Your task to perform on an android device: Add rayovac triple a to the cart on amazon.com Image 0: 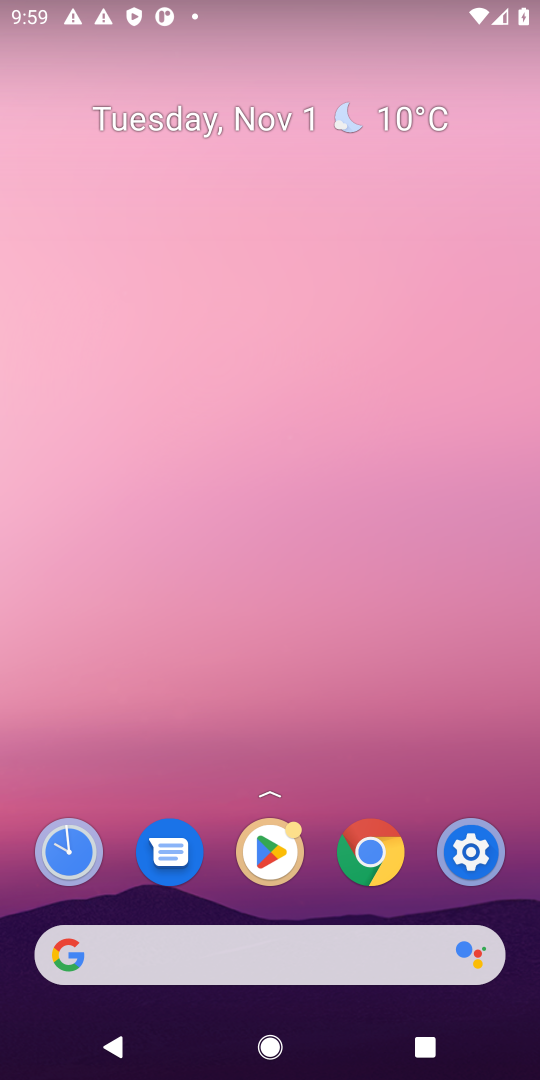
Step 0: click (57, 957)
Your task to perform on an android device: Add rayovac triple a to the cart on amazon.com Image 1: 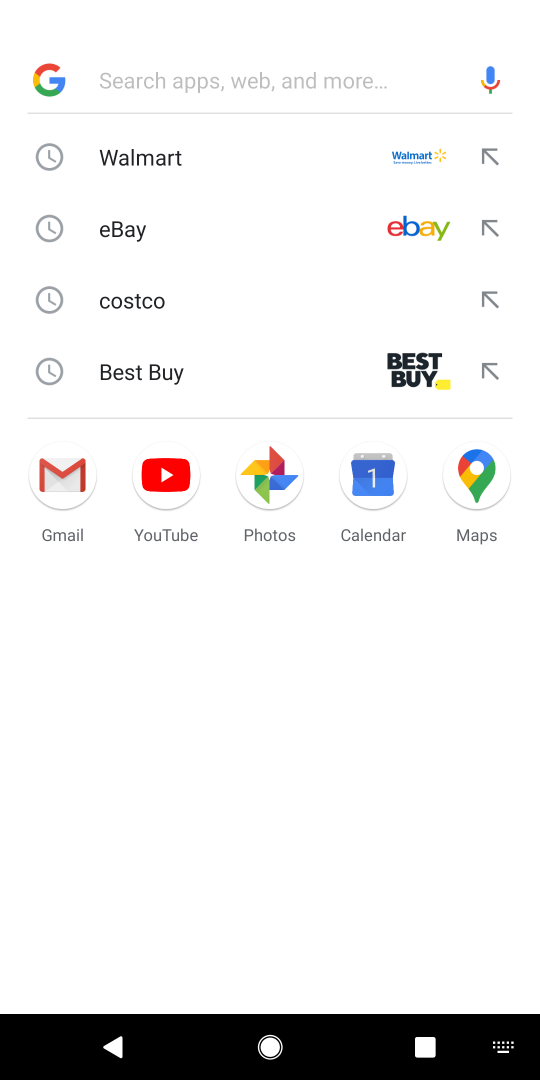
Step 1: type "amazon.com"
Your task to perform on an android device: Add rayovac triple a to the cart on amazon.com Image 2: 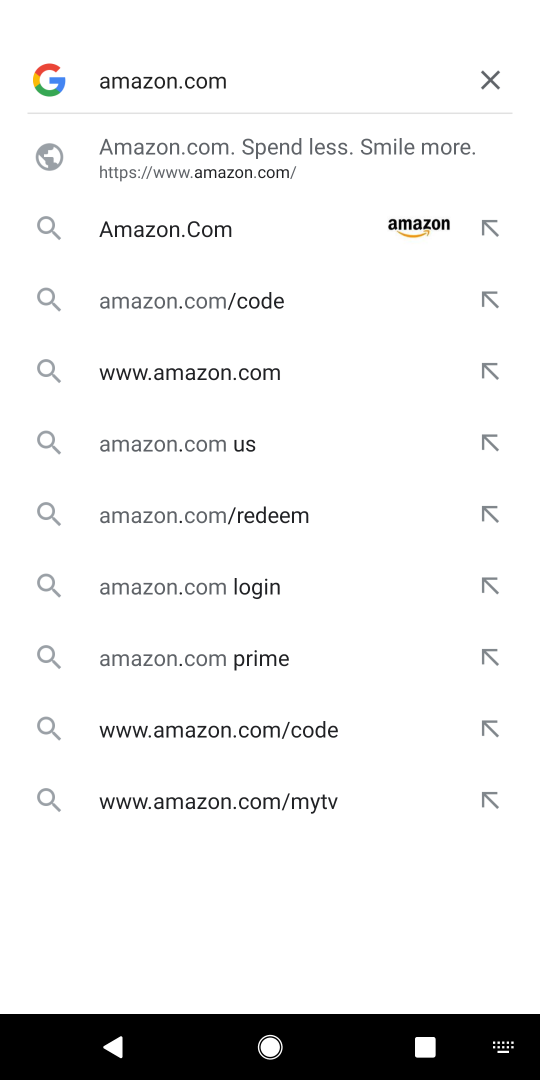
Step 2: press enter
Your task to perform on an android device: Add rayovac triple a to the cart on amazon.com Image 3: 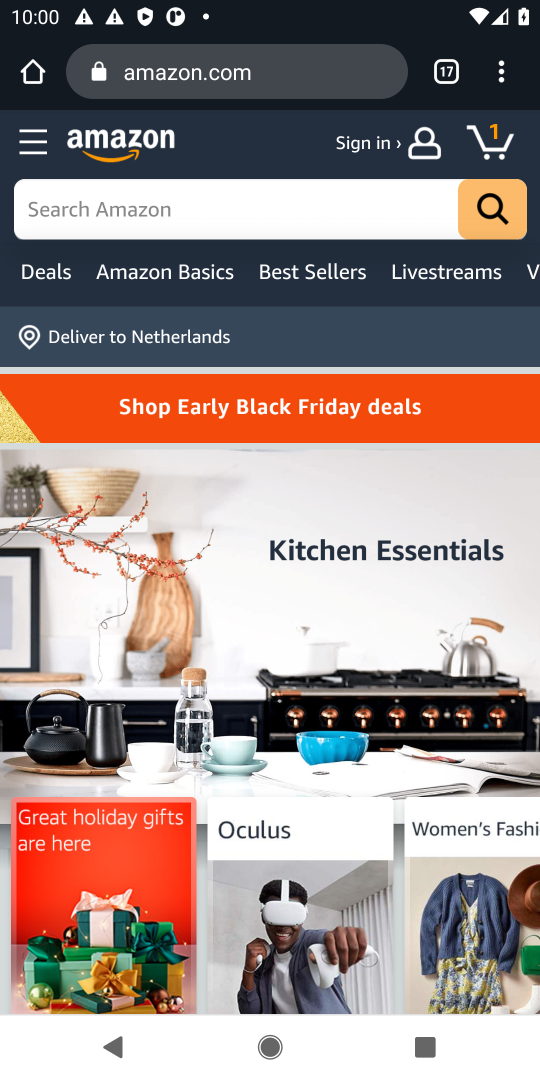
Step 3: click (79, 206)
Your task to perform on an android device: Add rayovac triple a to the cart on amazon.com Image 4: 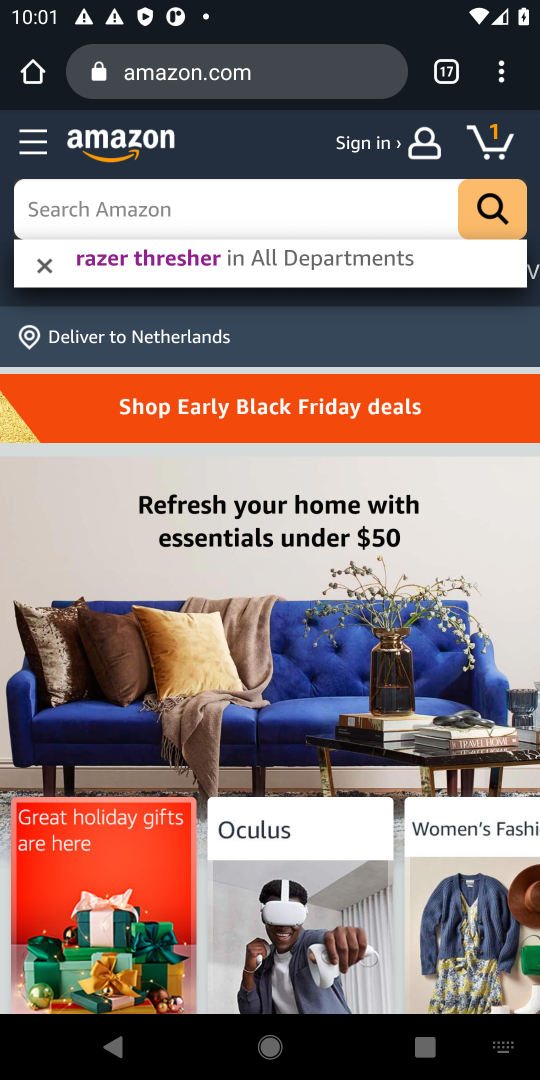
Step 4: press enter
Your task to perform on an android device: Add rayovac triple a to the cart on amazon.com Image 5: 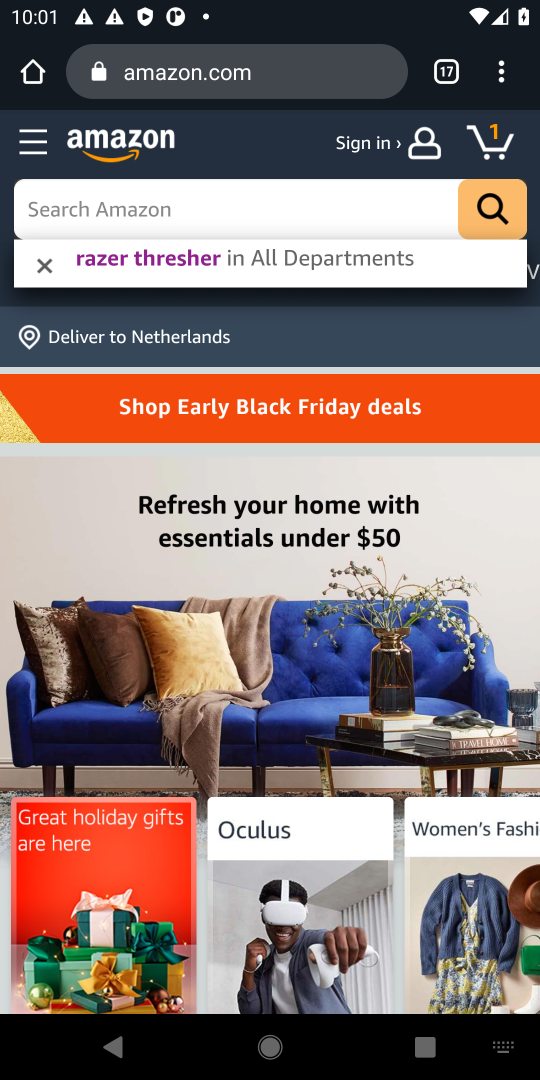
Step 5: type "rayovac triple a"
Your task to perform on an android device: Add rayovac triple a to the cart on amazon.com Image 6: 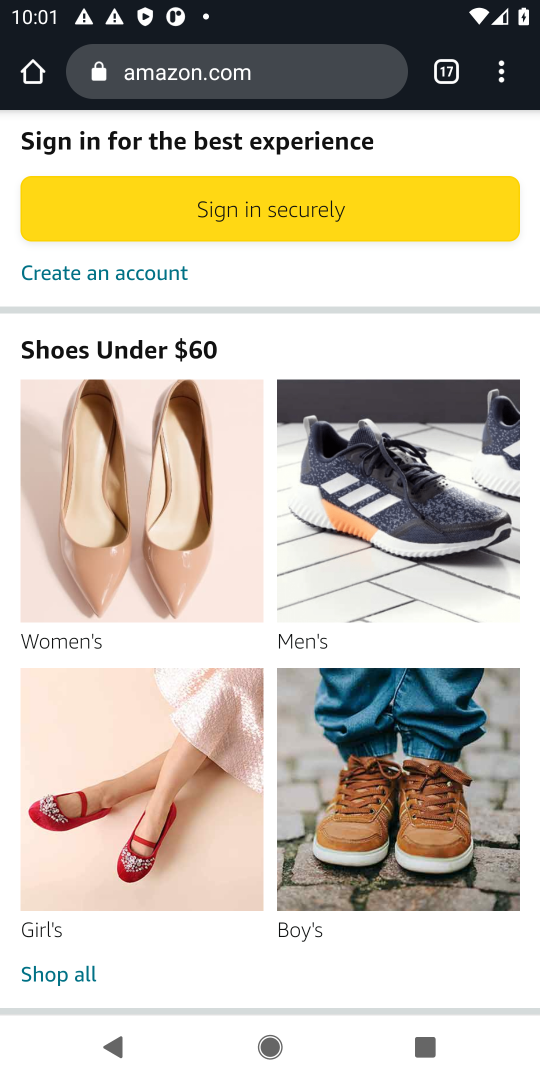
Step 6: press back button
Your task to perform on an android device: Add rayovac triple a to the cart on amazon.com Image 7: 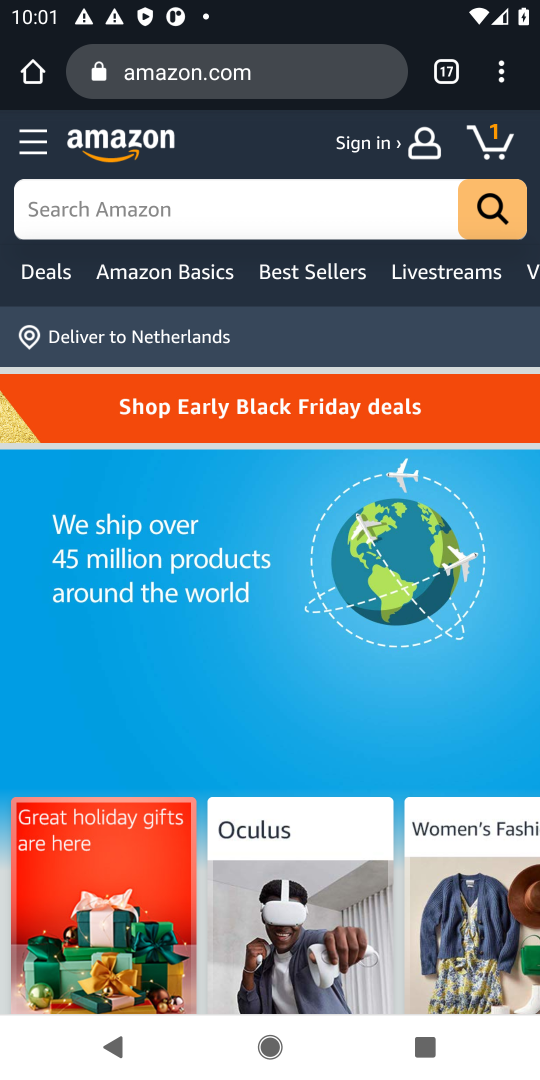
Step 7: click (198, 195)
Your task to perform on an android device: Add rayovac triple a to the cart on amazon.com Image 8: 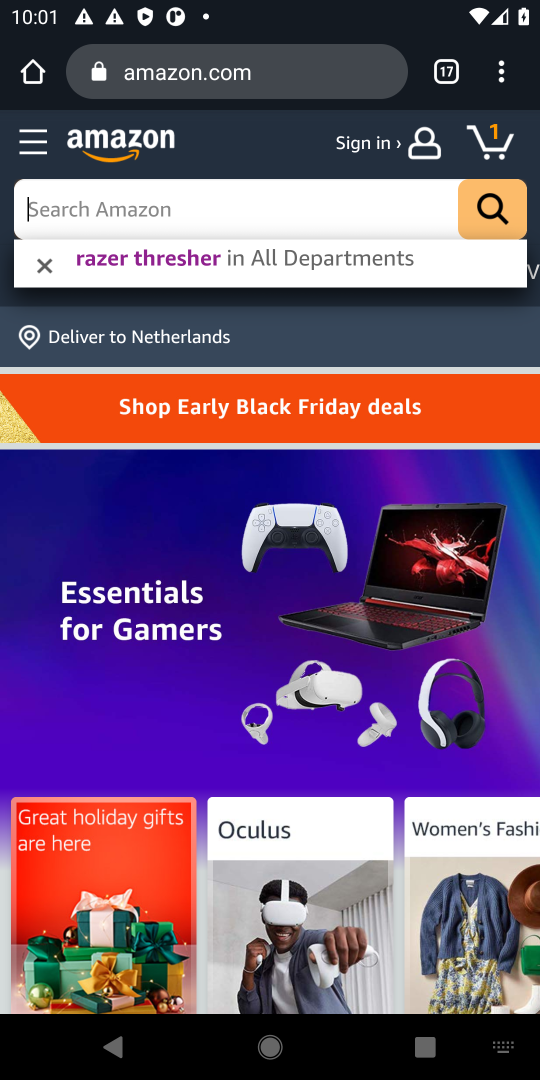
Step 8: press enter
Your task to perform on an android device: Add rayovac triple a to the cart on amazon.com Image 9: 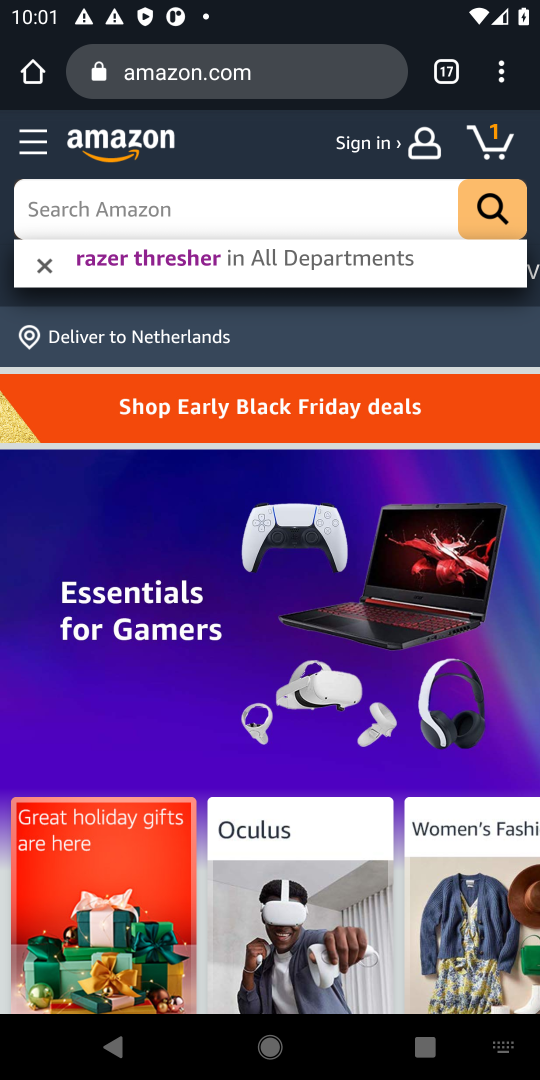
Step 9: type "rayovac triple a"
Your task to perform on an android device: Add rayovac triple a to the cart on amazon.com Image 10: 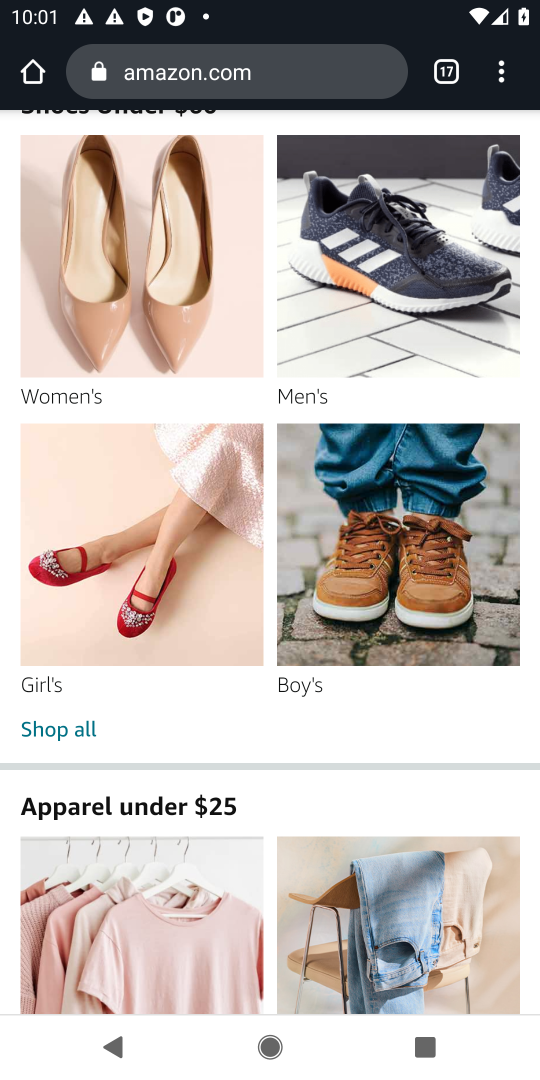
Step 10: task complete